Your task to perform on an android device: Open the calendar and show me this week's events? Image 0: 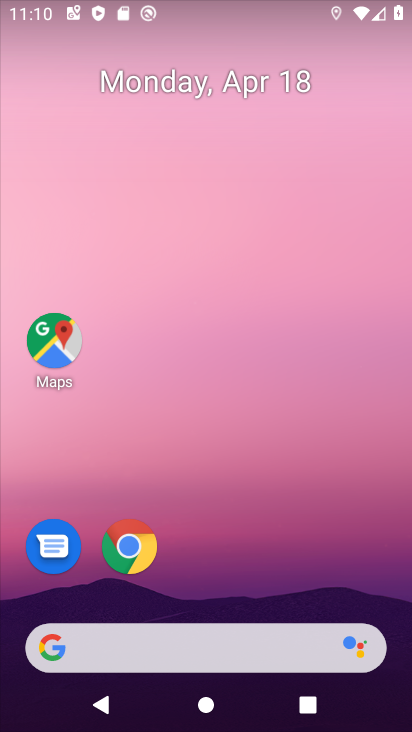
Step 0: click (142, 544)
Your task to perform on an android device: Open the calendar and show me this week's events? Image 1: 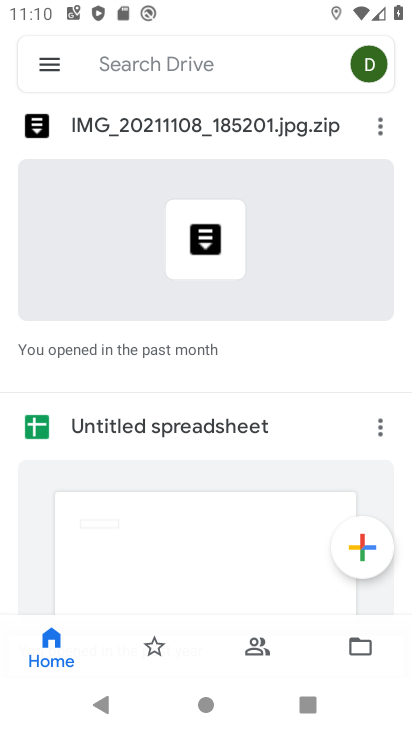
Step 1: press back button
Your task to perform on an android device: Open the calendar and show me this week's events? Image 2: 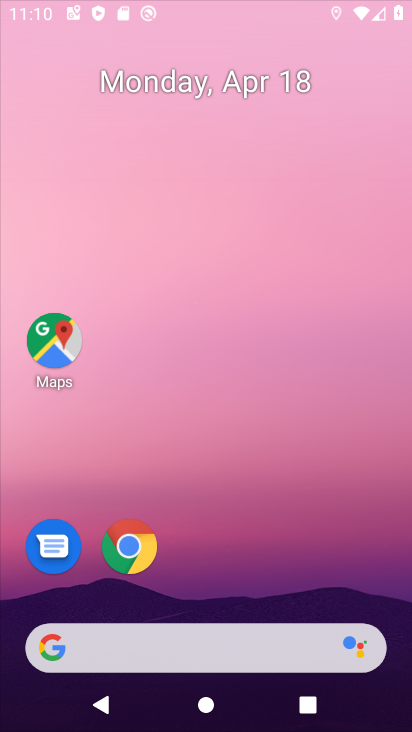
Step 2: press back button
Your task to perform on an android device: Open the calendar and show me this week's events? Image 3: 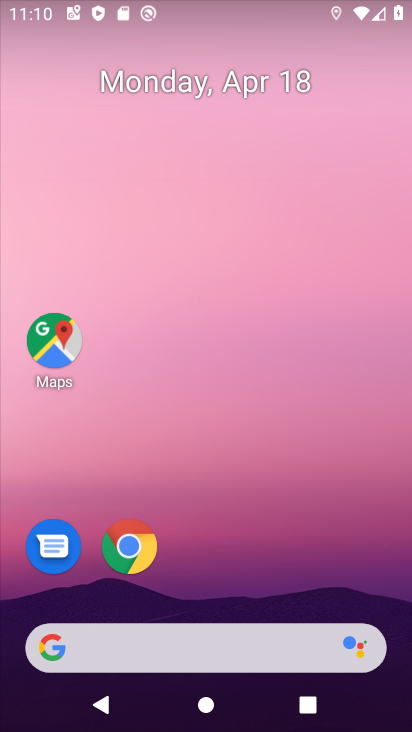
Step 3: press back button
Your task to perform on an android device: Open the calendar and show me this week's events? Image 4: 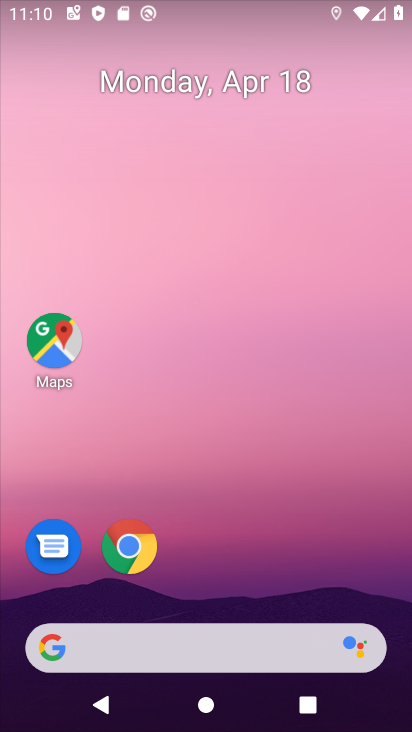
Step 4: drag from (218, 574) to (138, 0)
Your task to perform on an android device: Open the calendar and show me this week's events? Image 5: 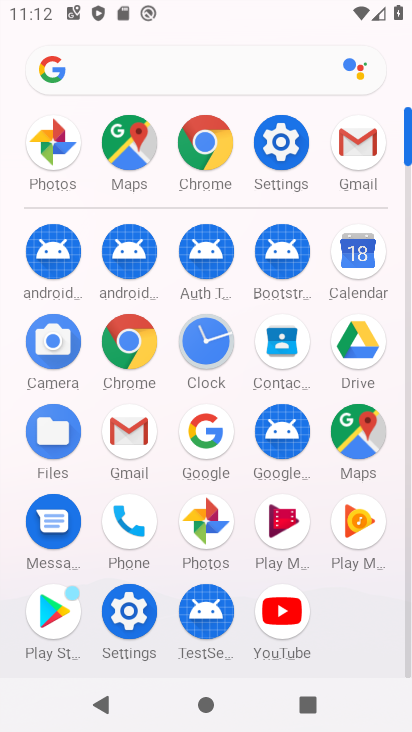
Step 5: click (351, 267)
Your task to perform on an android device: Open the calendar and show me this week's events? Image 6: 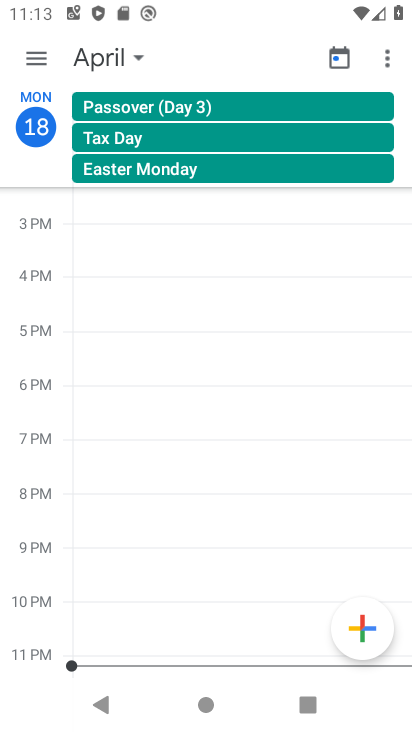
Step 6: click (93, 62)
Your task to perform on an android device: Open the calendar and show me this week's events? Image 7: 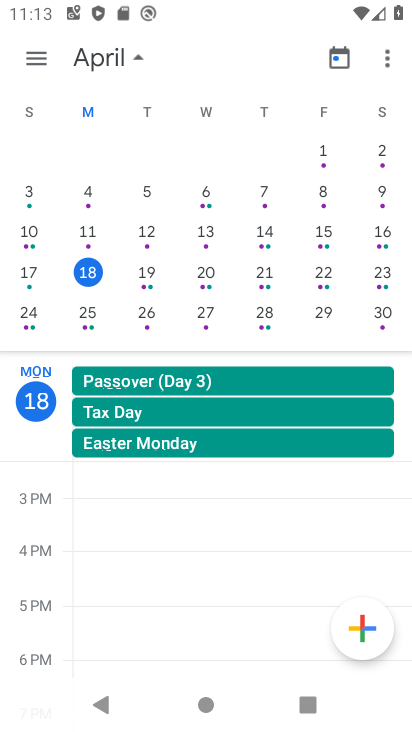
Step 7: click (152, 309)
Your task to perform on an android device: Open the calendar and show me this week's events? Image 8: 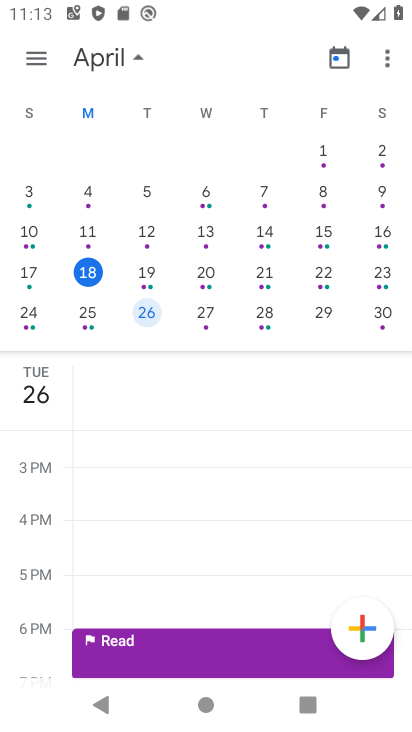
Step 8: task complete